Your task to perform on an android device: Do I have any events this weekend? Image 0: 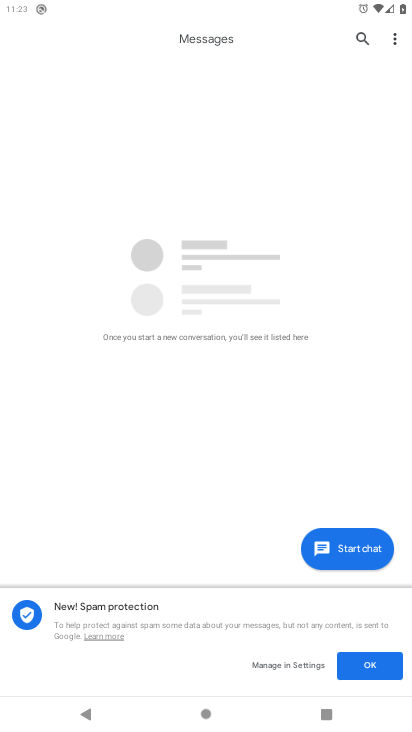
Step 0: press home button
Your task to perform on an android device: Do I have any events this weekend? Image 1: 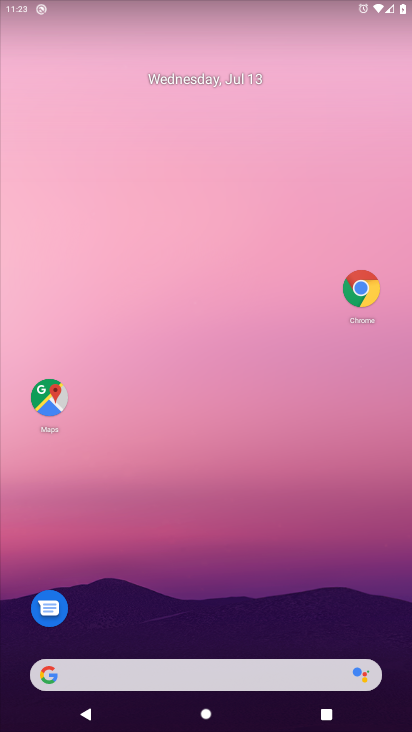
Step 1: drag from (24, 683) to (352, 75)
Your task to perform on an android device: Do I have any events this weekend? Image 2: 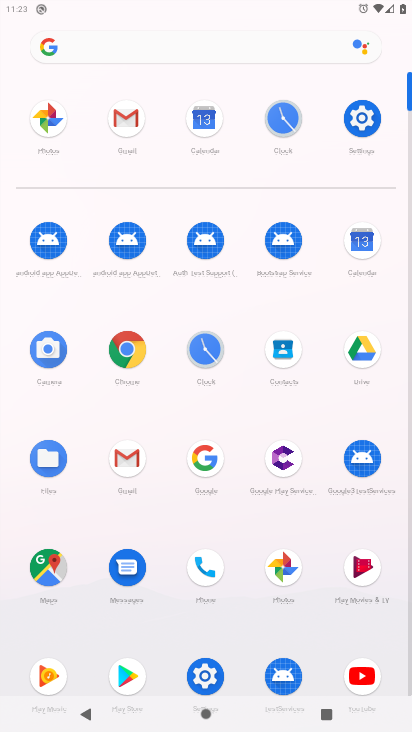
Step 2: click (352, 232)
Your task to perform on an android device: Do I have any events this weekend? Image 3: 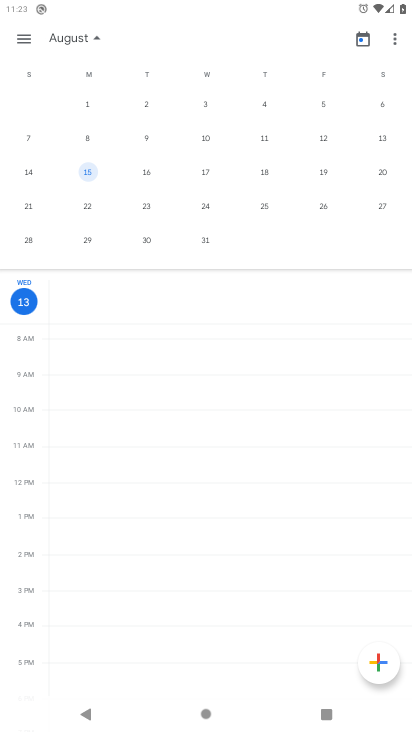
Step 3: drag from (9, 148) to (402, 150)
Your task to perform on an android device: Do I have any events this weekend? Image 4: 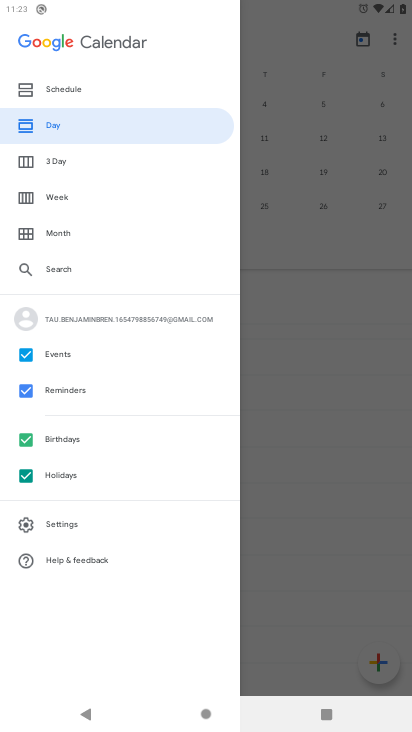
Step 4: click (410, 349)
Your task to perform on an android device: Do I have any events this weekend? Image 5: 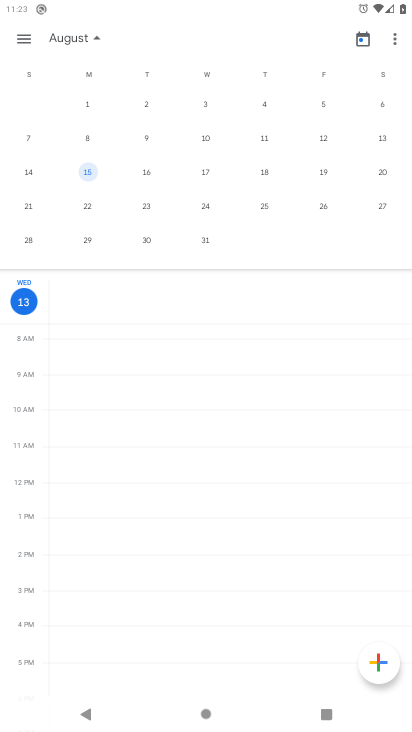
Step 5: task complete